Your task to perform on an android device: delete location history Image 0: 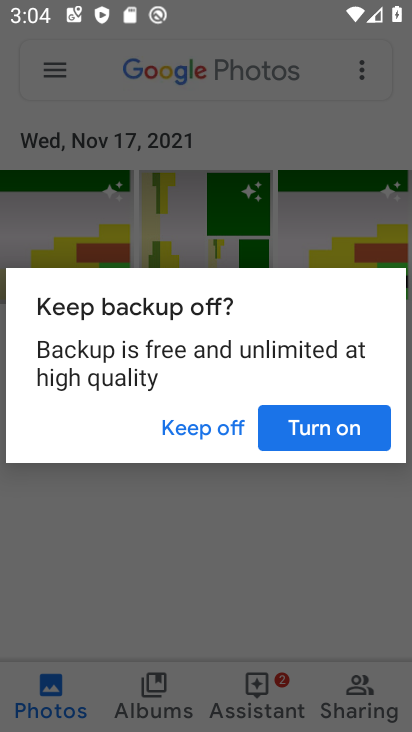
Step 0: press back button
Your task to perform on an android device: delete location history Image 1: 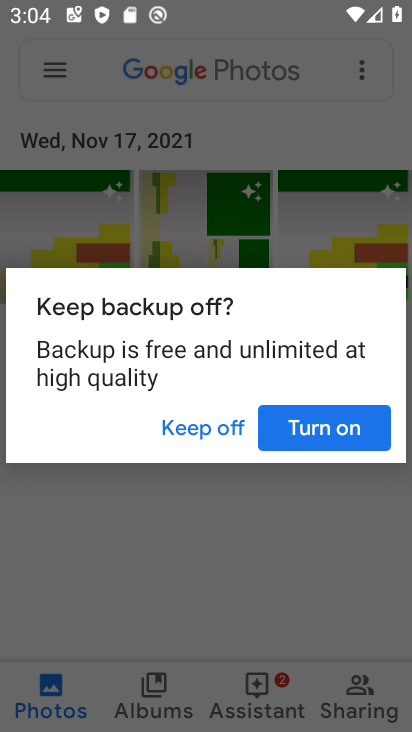
Step 1: press home button
Your task to perform on an android device: delete location history Image 2: 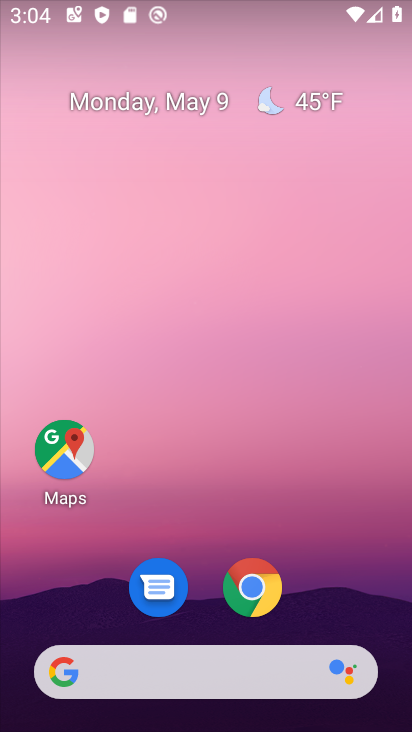
Step 2: drag from (190, 621) to (217, 447)
Your task to perform on an android device: delete location history Image 3: 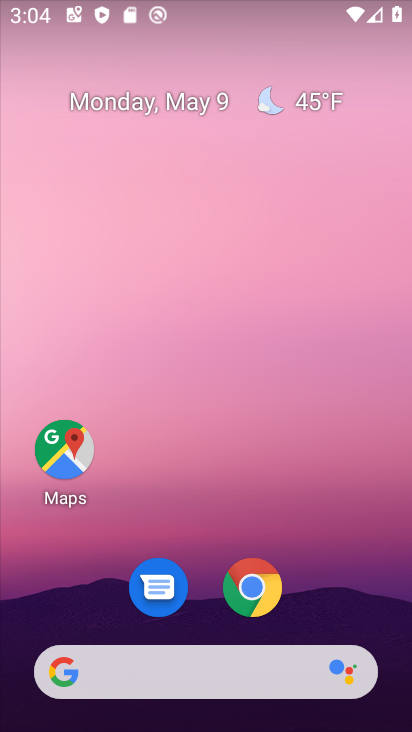
Step 3: drag from (193, 639) to (222, 434)
Your task to perform on an android device: delete location history Image 4: 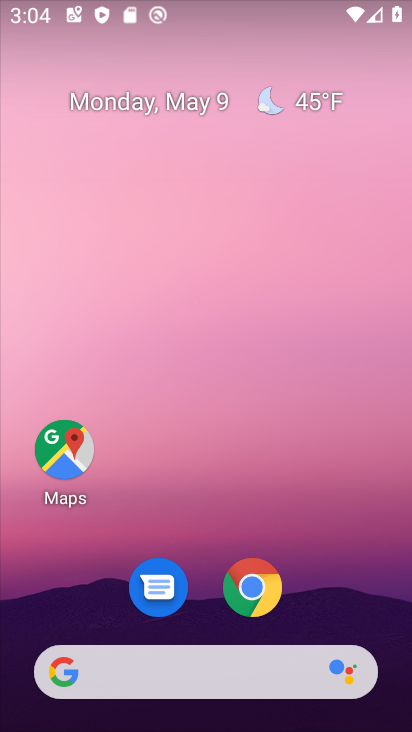
Step 4: drag from (203, 634) to (235, 439)
Your task to perform on an android device: delete location history Image 5: 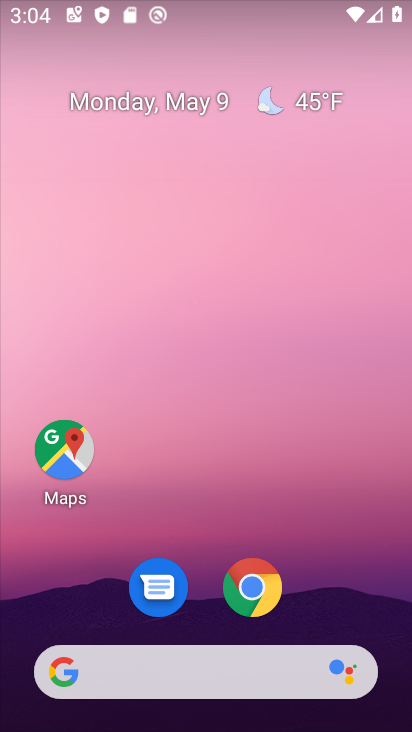
Step 5: drag from (207, 610) to (258, 163)
Your task to perform on an android device: delete location history Image 6: 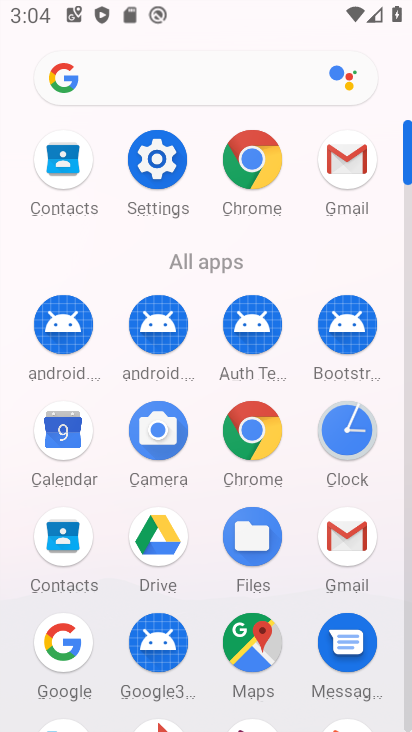
Step 6: click (251, 666)
Your task to perform on an android device: delete location history Image 7: 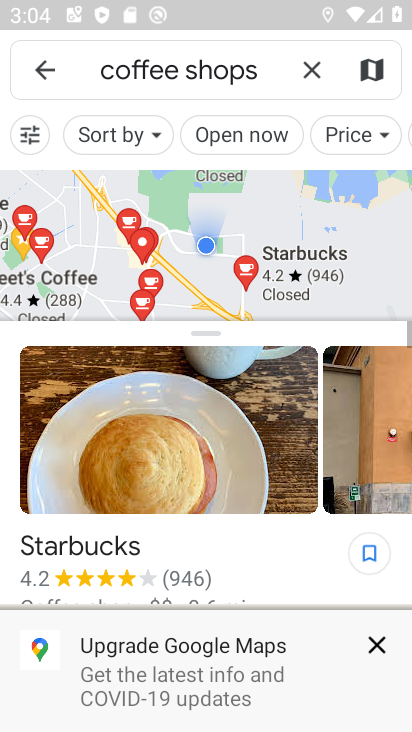
Step 7: click (58, 78)
Your task to perform on an android device: delete location history Image 8: 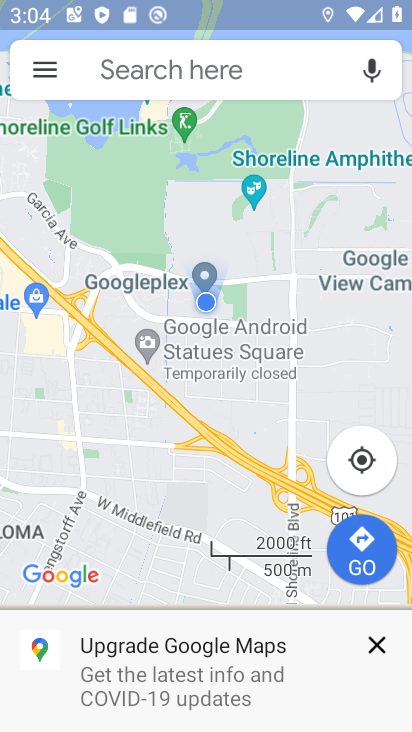
Step 8: click (56, 77)
Your task to perform on an android device: delete location history Image 9: 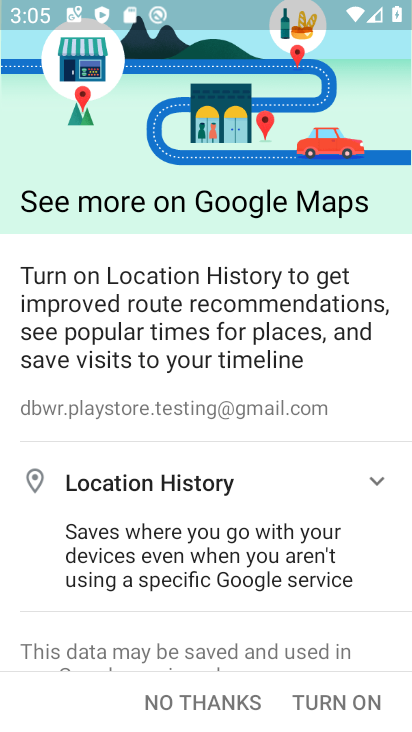
Step 9: click (245, 710)
Your task to perform on an android device: delete location history Image 10: 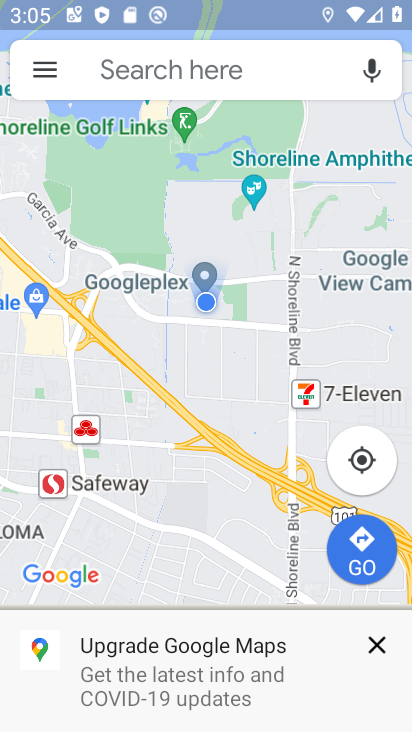
Step 10: click (61, 53)
Your task to perform on an android device: delete location history Image 11: 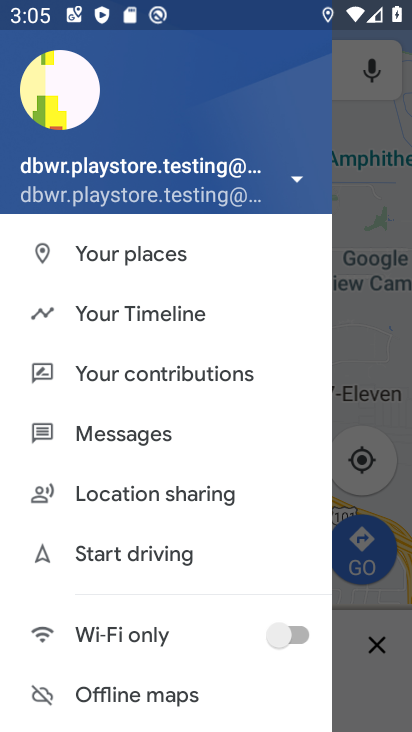
Step 11: click (172, 315)
Your task to perform on an android device: delete location history Image 12: 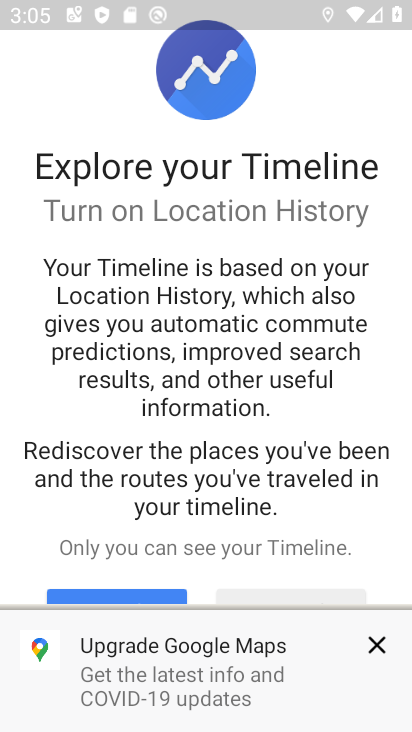
Step 12: drag from (293, 486) to (308, 295)
Your task to perform on an android device: delete location history Image 13: 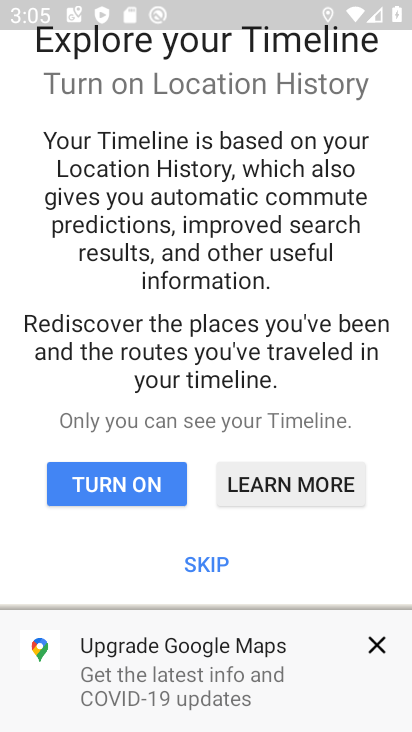
Step 13: click (196, 565)
Your task to perform on an android device: delete location history Image 14: 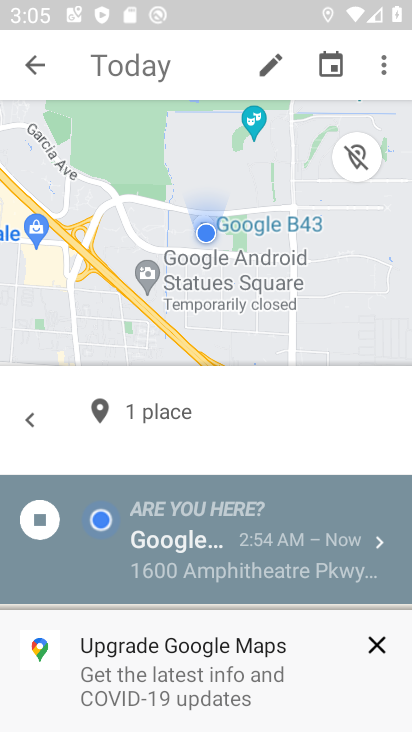
Step 14: click (381, 67)
Your task to perform on an android device: delete location history Image 15: 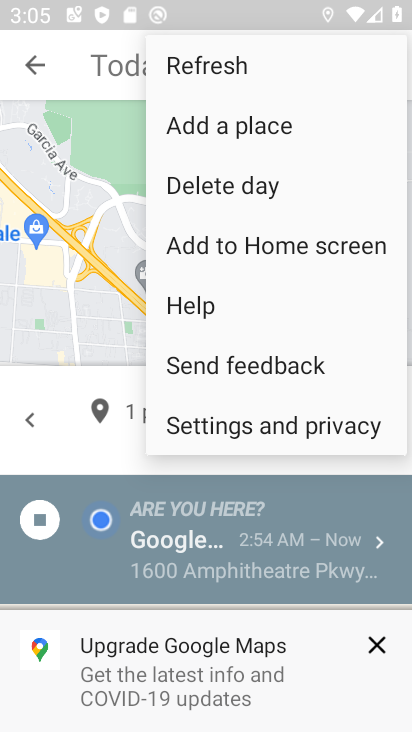
Step 15: click (349, 197)
Your task to perform on an android device: delete location history Image 16: 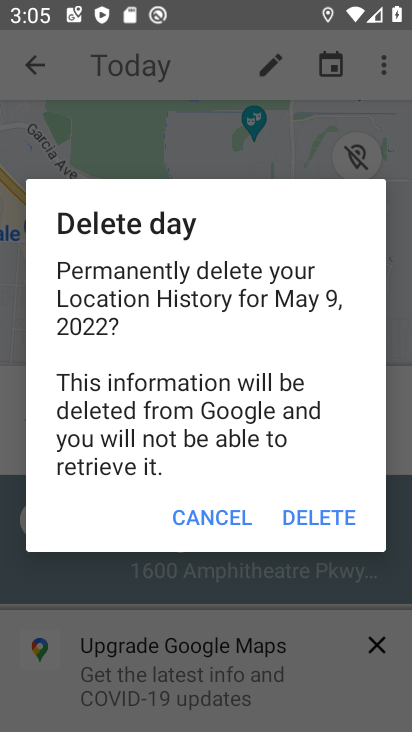
Step 16: click (332, 530)
Your task to perform on an android device: delete location history Image 17: 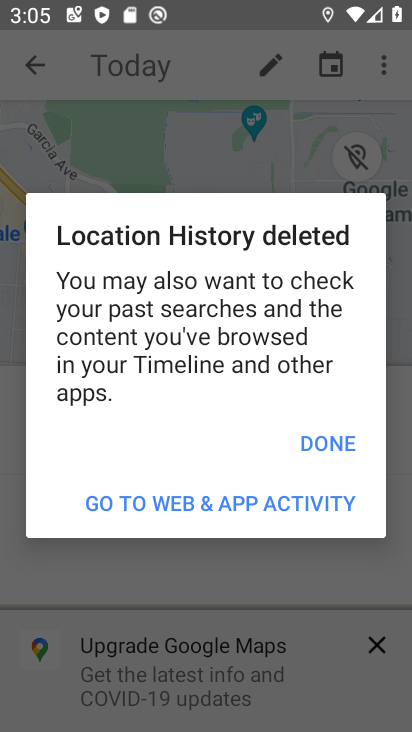
Step 17: click (337, 464)
Your task to perform on an android device: delete location history Image 18: 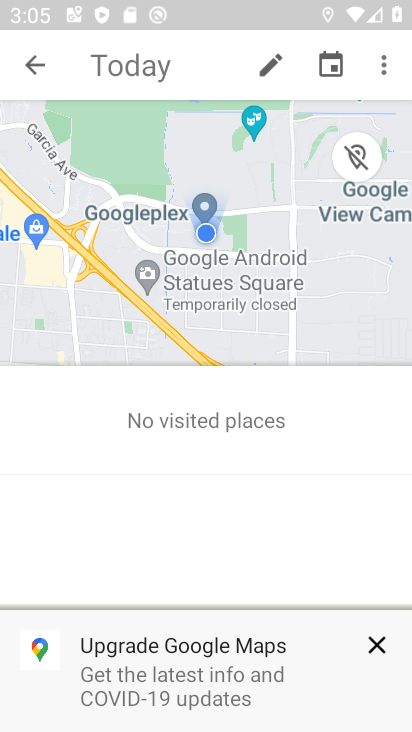
Step 18: task complete